Your task to perform on an android device: open a new tab in the chrome app Image 0: 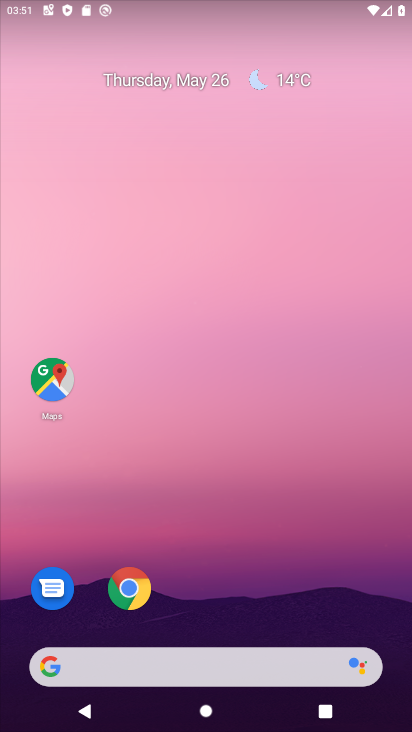
Step 0: click (289, 253)
Your task to perform on an android device: open a new tab in the chrome app Image 1: 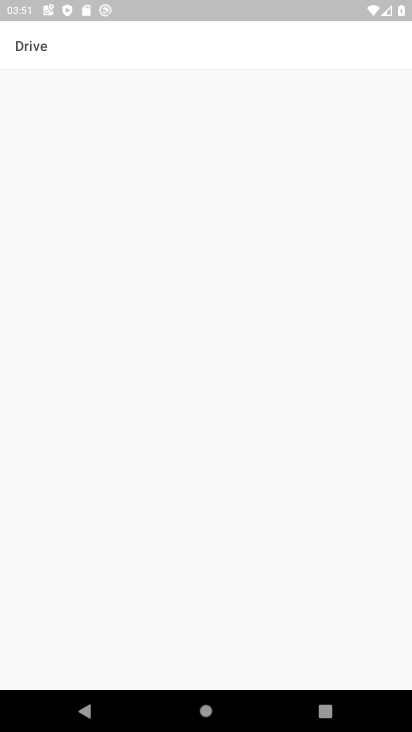
Step 1: press home button
Your task to perform on an android device: open a new tab in the chrome app Image 2: 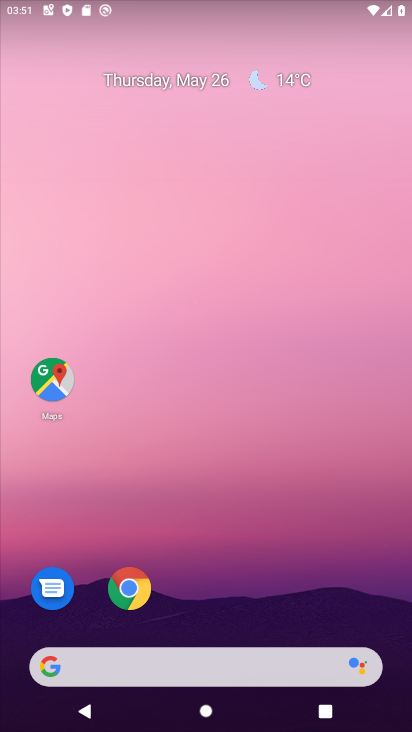
Step 2: click (133, 584)
Your task to perform on an android device: open a new tab in the chrome app Image 3: 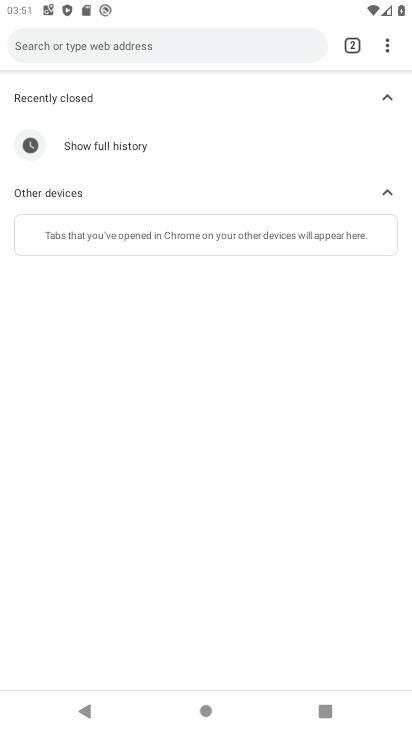
Step 3: click (223, 44)
Your task to perform on an android device: open a new tab in the chrome app Image 4: 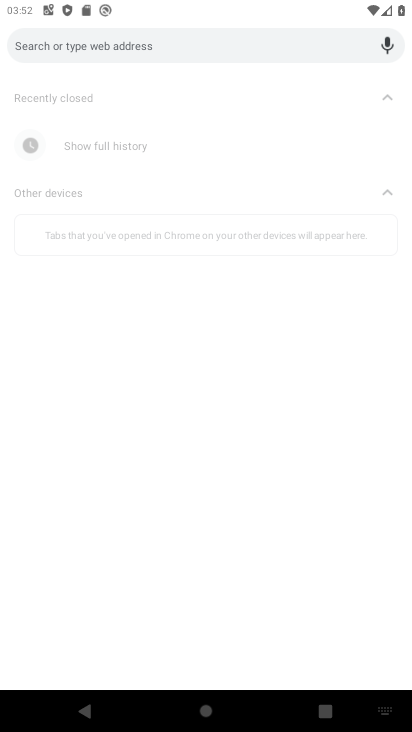
Step 4: click (329, 399)
Your task to perform on an android device: open a new tab in the chrome app Image 5: 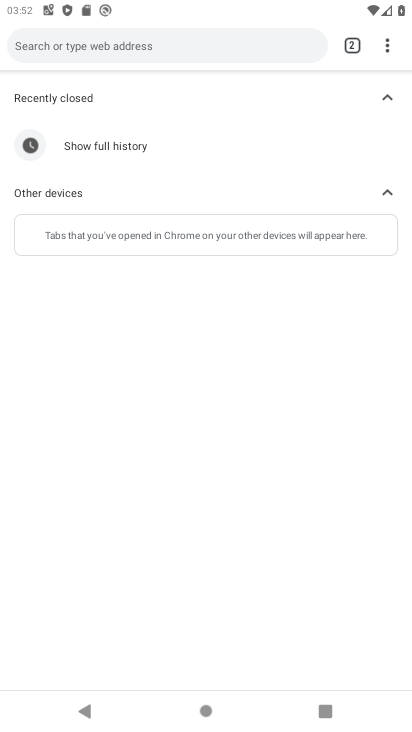
Step 5: click (349, 39)
Your task to perform on an android device: open a new tab in the chrome app Image 6: 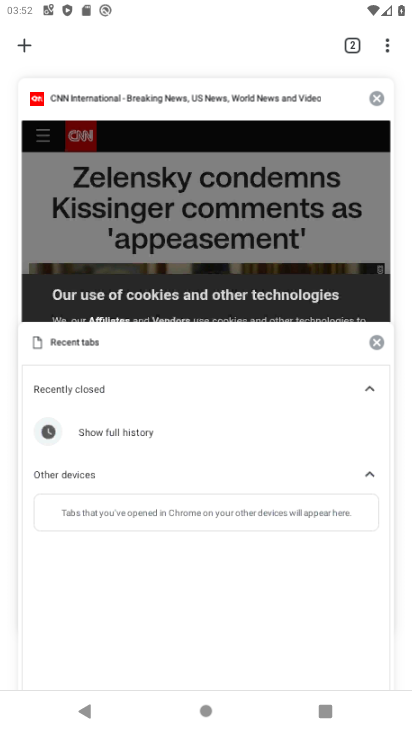
Step 6: click (26, 37)
Your task to perform on an android device: open a new tab in the chrome app Image 7: 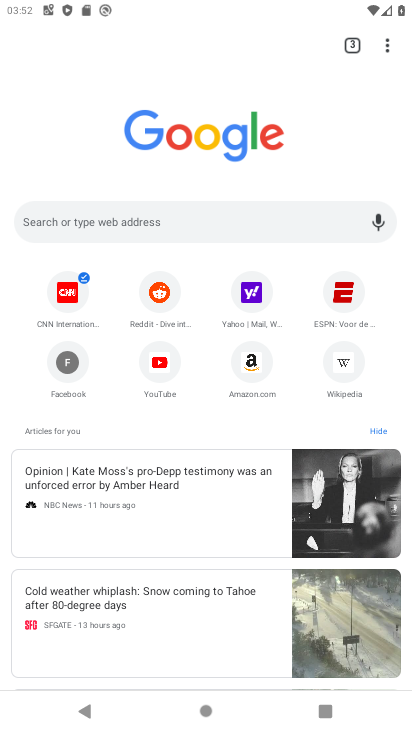
Step 7: task complete